Your task to perform on an android device: Open Maps and search for coffee Image 0: 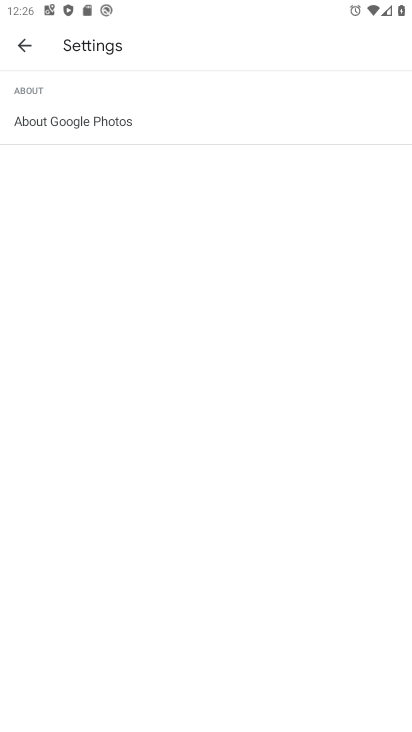
Step 0: press home button
Your task to perform on an android device: Open Maps and search for coffee Image 1: 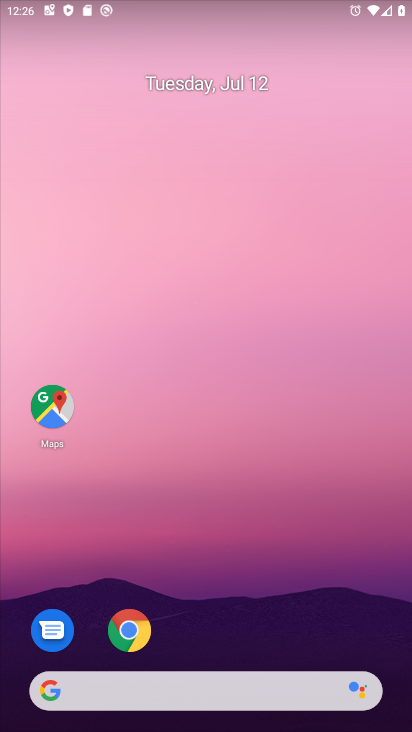
Step 1: click (52, 408)
Your task to perform on an android device: Open Maps and search for coffee Image 2: 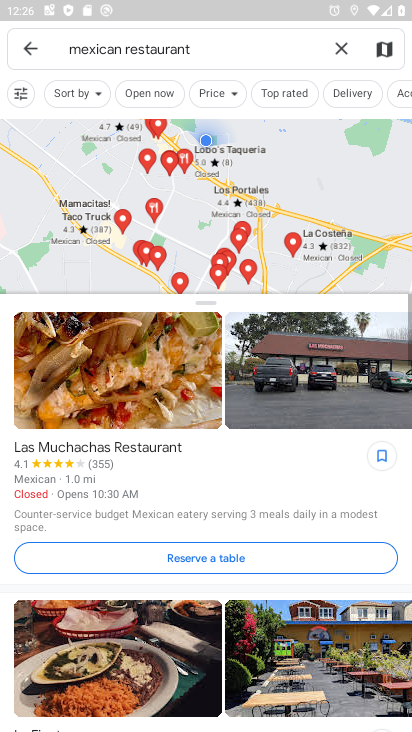
Step 2: click (337, 51)
Your task to perform on an android device: Open Maps and search for coffee Image 3: 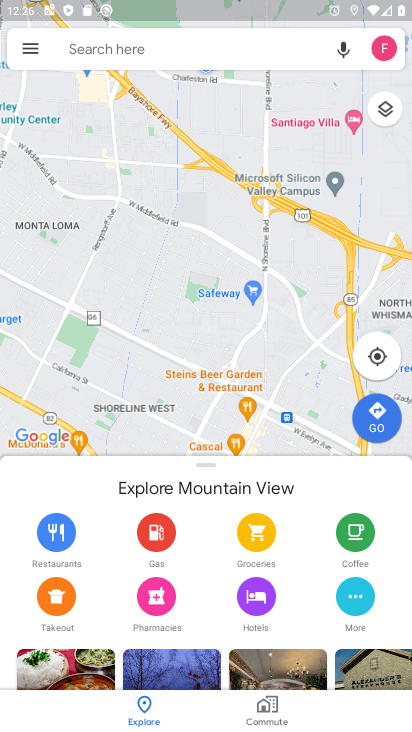
Step 3: click (193, 46)
Your task to perform on an android device: Open Maps and search for coffee Image 4: 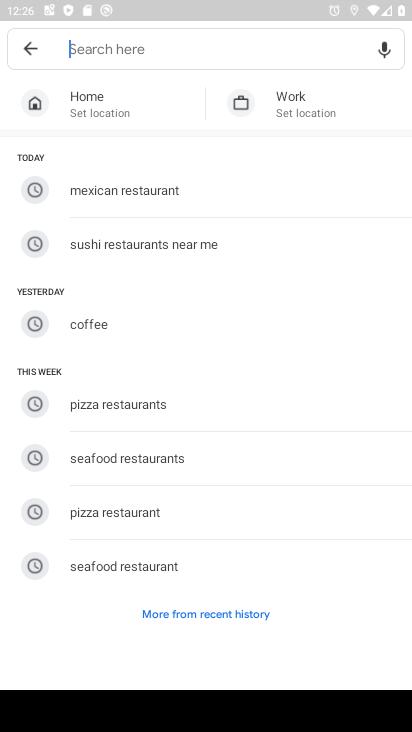
Step 4: type "coffee"
Your task to perform on an android device: Open Maps and search for coffee Image 5: 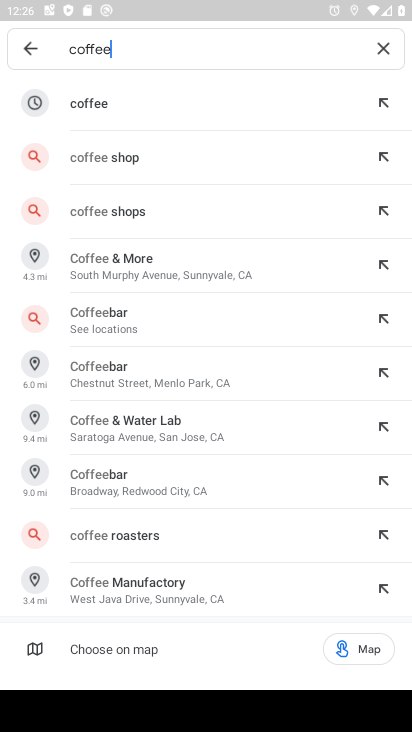
Step 5: click (92, 102)
Your task to perform on an android device: Open Maps and search for coffee Image 6: 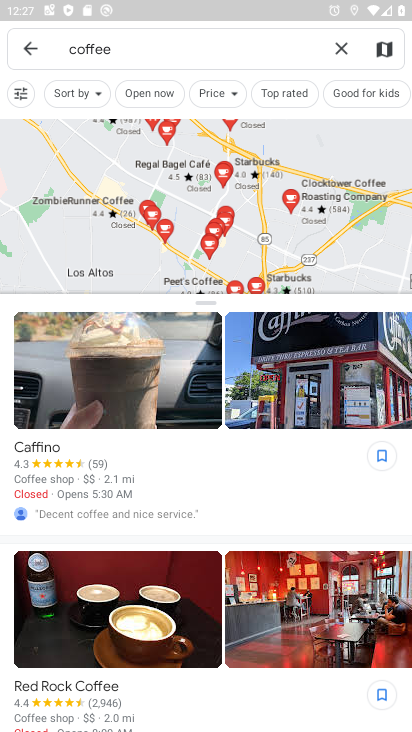
Step 6: task complete